Your task to perform on an android device: find photos in the google photos app Image 0: 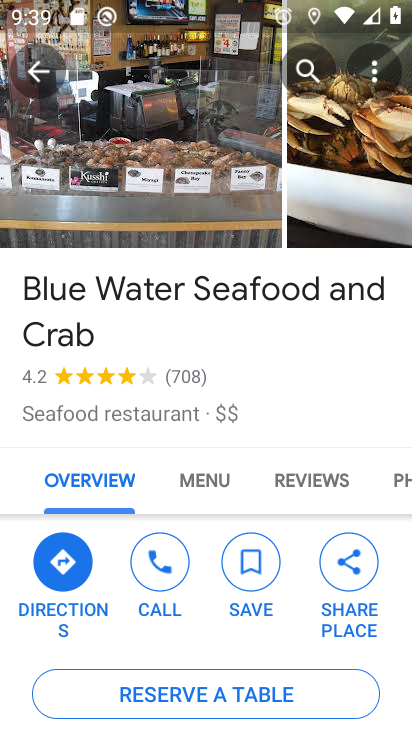
Step 0: press home button
Your task to perform on an android device: find photos in the google photos app Image 1: 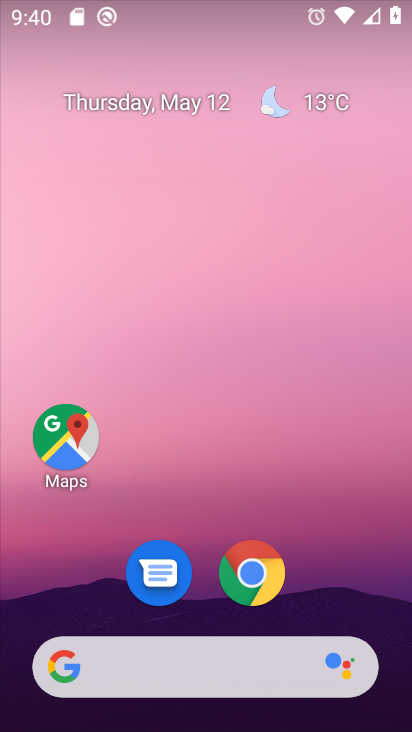
Step 1: drag from (396, 655) to (352, 341)
Your task to perform on an android device: find photos in the google photos app Image 2: 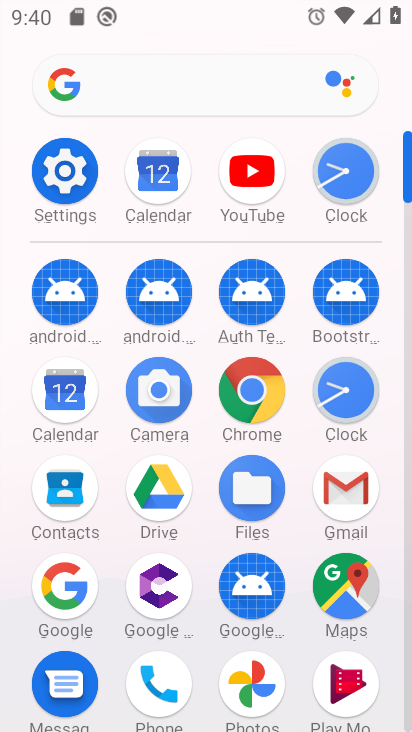
Step 2: click (260, 672)
Your task to perform on an android device: find photos in the google photos app Image 3: 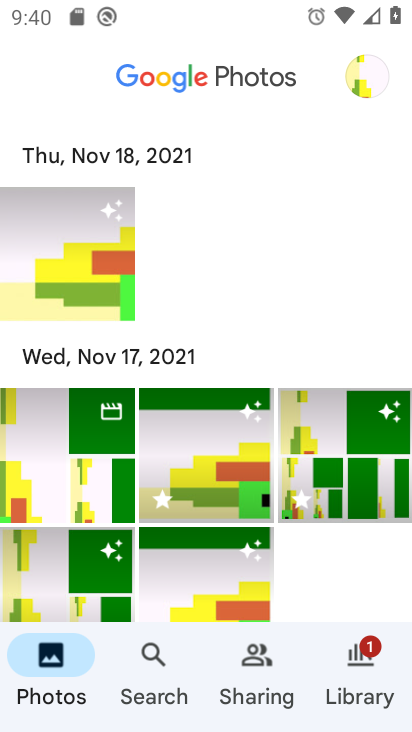
Step 3: click (64, 253)
Your task to perform on an android device: find photos in the google photos app Image 4: 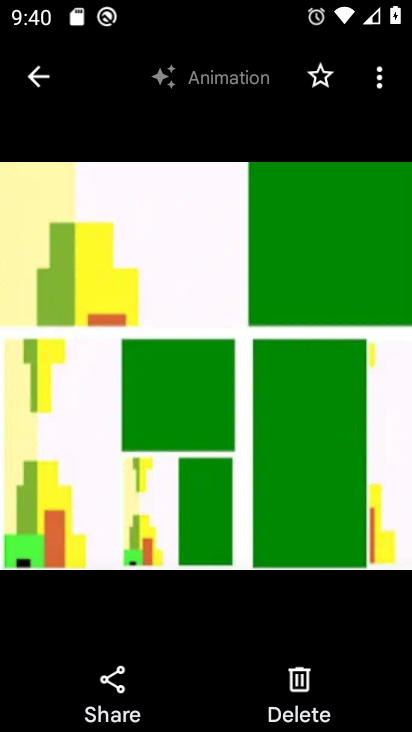
Step 4: task complete